Your task to perform on an android device: change text size in settings app Image 0: 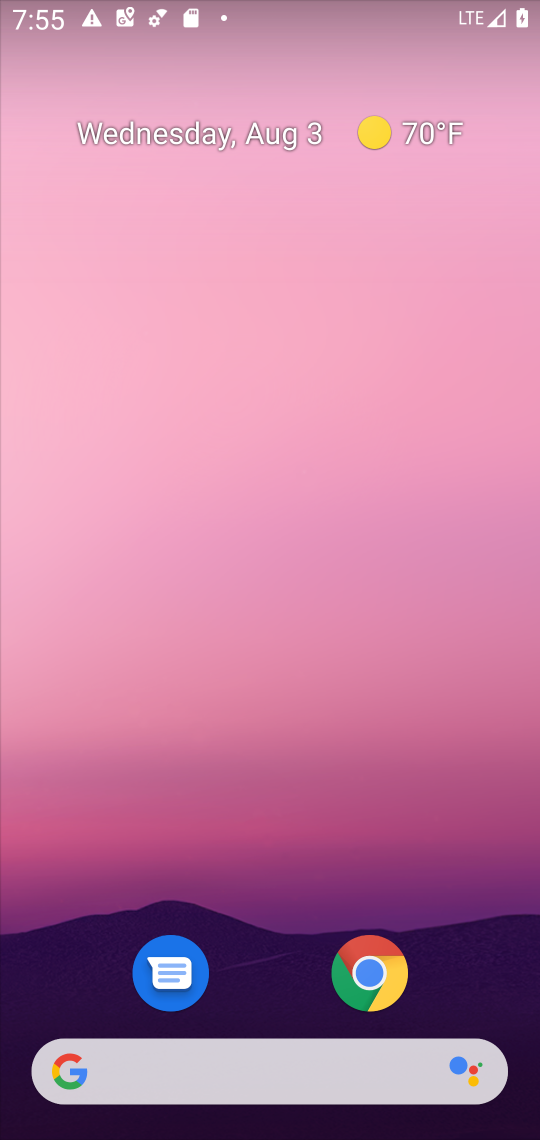
Step 0: drag from (280, 1005) to (268, 126)
Your task to perform on an android device: change text size in settings app Image 1: 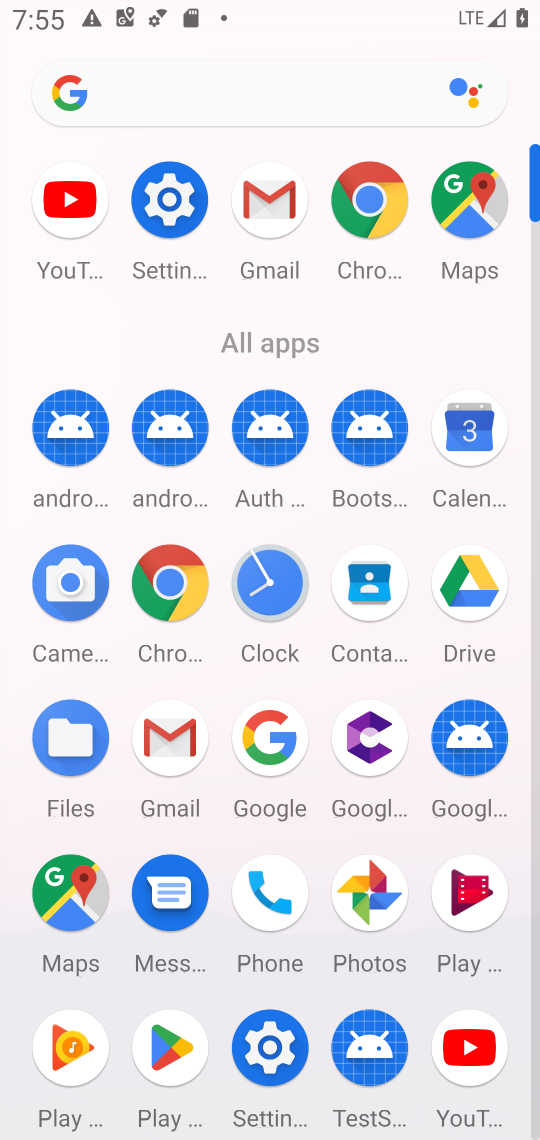
Step 1: click (163, 190)
Your task to perform on an android device: change text size in settings app Image 2: 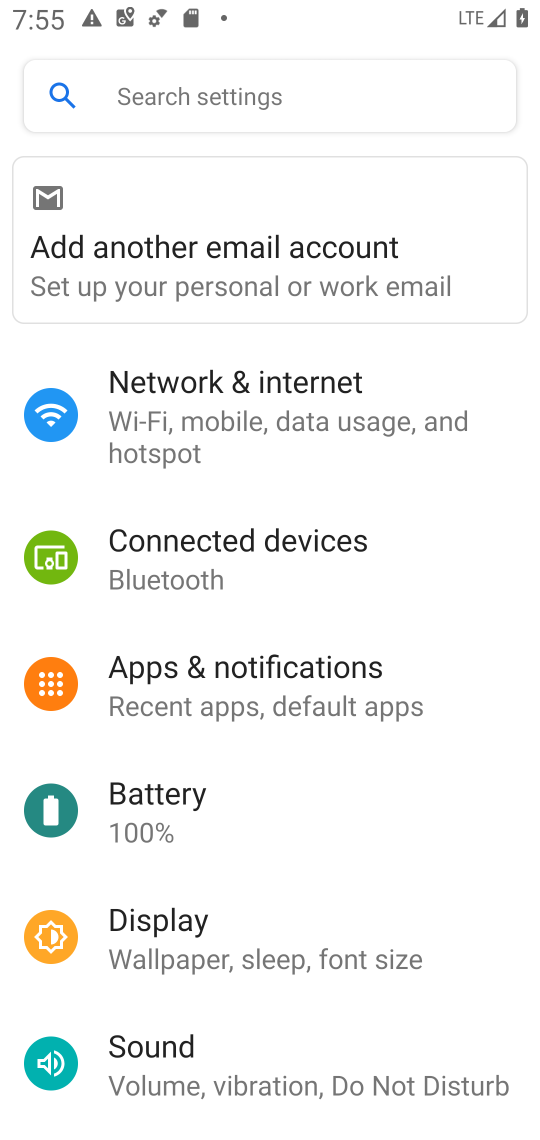
Step 2: click (227, 916)
Your task to perform on an android device: change text size in settings app Image 3: 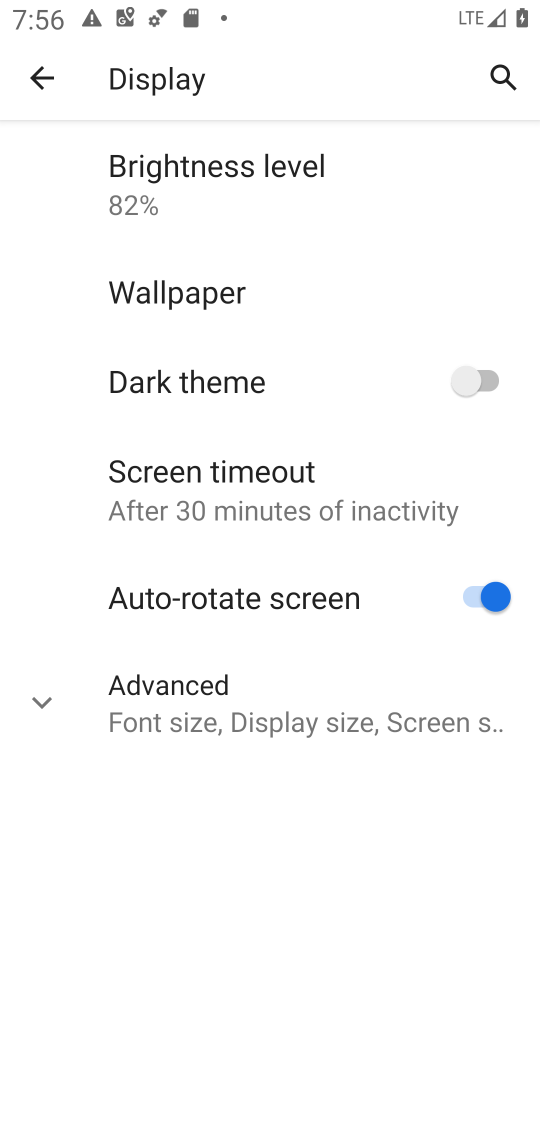
Step 3: click (43, 695)
Your task to perform on an android device: change text size in settings app Image 4: 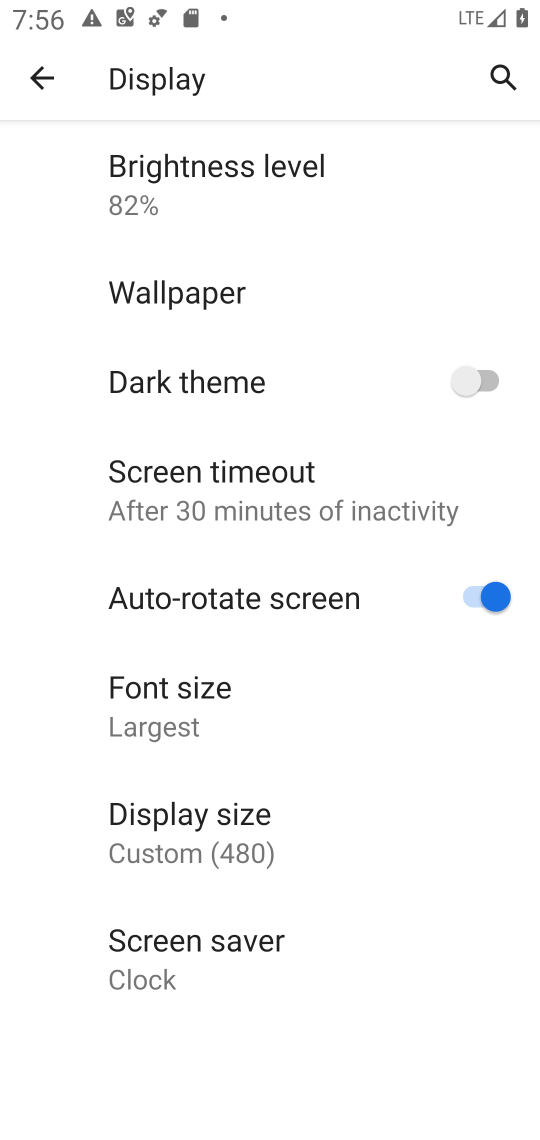
Step 4: click (251, 713)
Your task to perform on an android device: change text size in settings app Image 5: 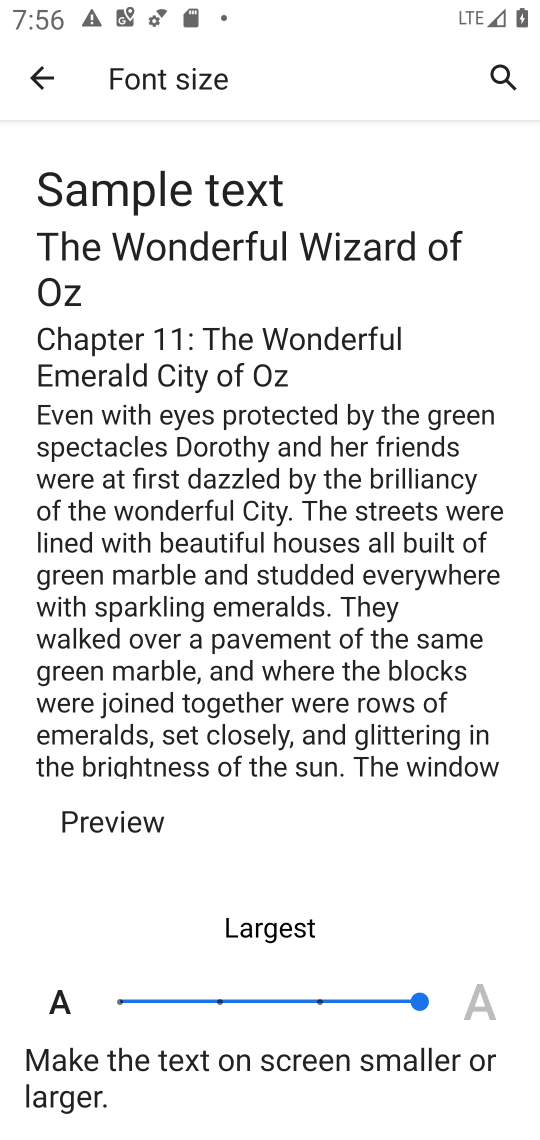
Step 5: click (318, 988)
Your task to perform on an android device: change text size in settings app Image 6: 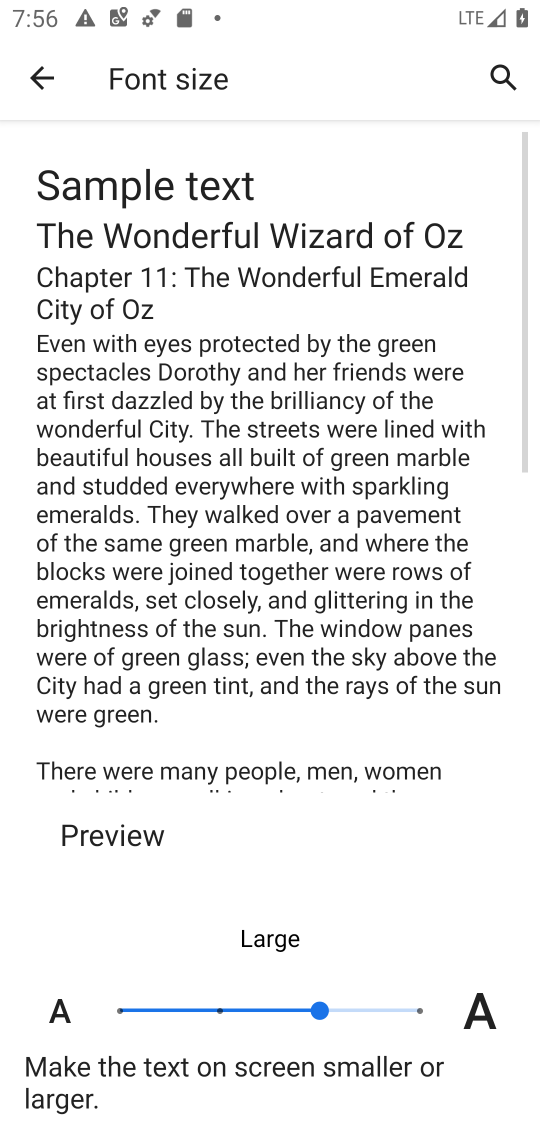
Step 6: click (217, 1000)
Your task to perform on an android device: change text size in settings app Image 7: 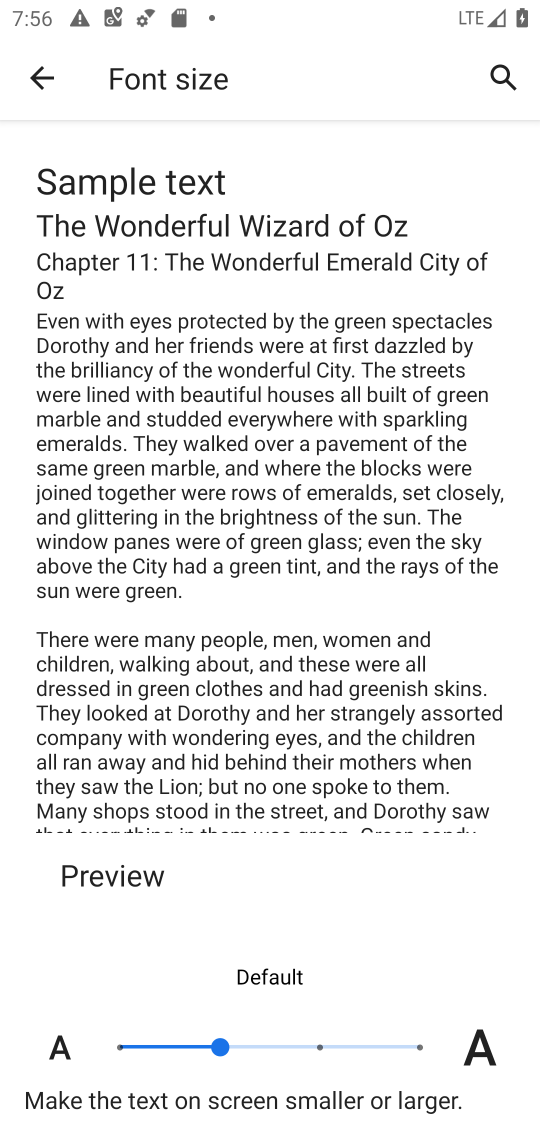
Step 7: task complete